Your task to perform on an android device: stop showing notifications on the lock screen Image 0: 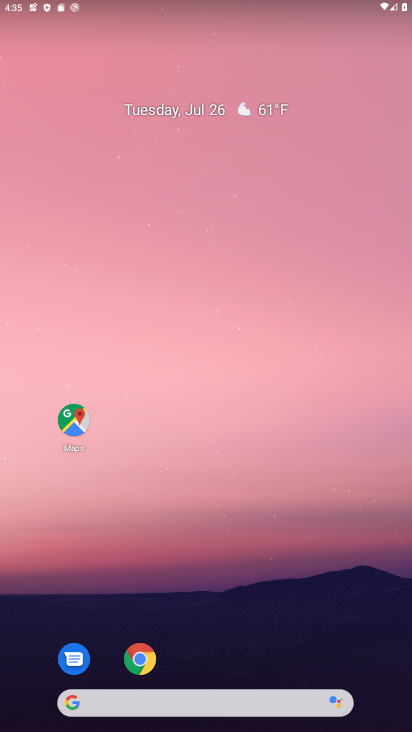
Step 0: drag from (293, 594) to (320, 332)
Your task to perform on an android device: stop showing notifications on the lock screen Image 1: 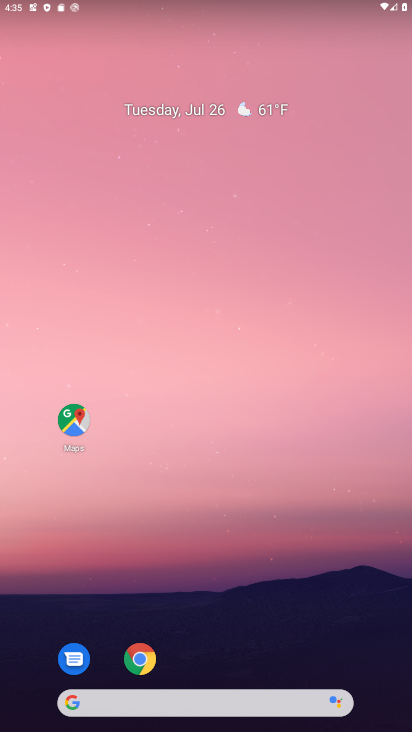
Step 1: drag from (248, 570) to (291, 201)
Your task to perform on an android device: stop showing notifications on the lock screen Image 2: 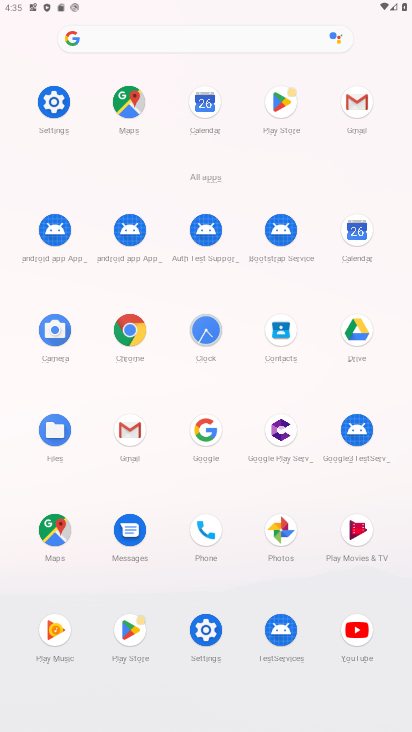
Step 2: click (208, 638)
Your task to perform on an android device: stop showing notifications on the lock screen Image 3: 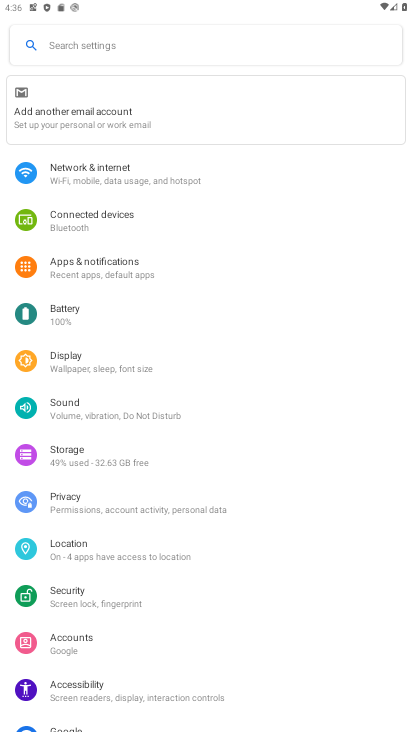
Step 3: task complete